Your task to perform on an android device: turn off wifi Image 0: 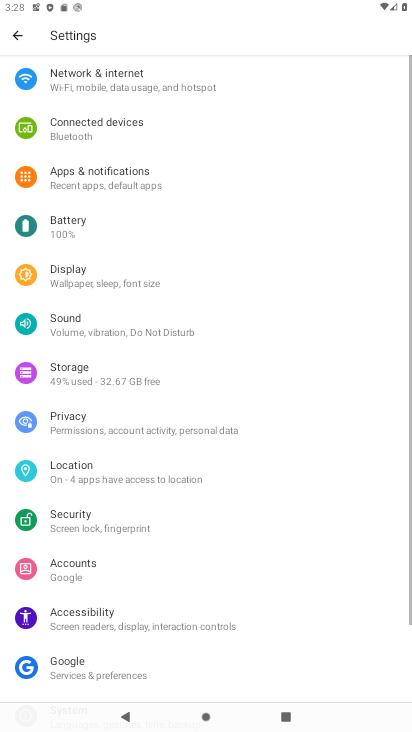
Step 0: click (84, 85)
Your task to perform on an android device: turn off wifi Image 1: 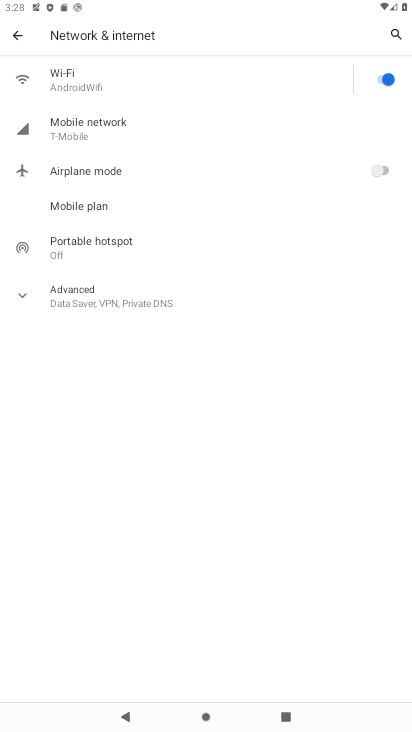
Step 1: click (379, 79)
Your task to perform on an android device: turn off wifi Image 2: 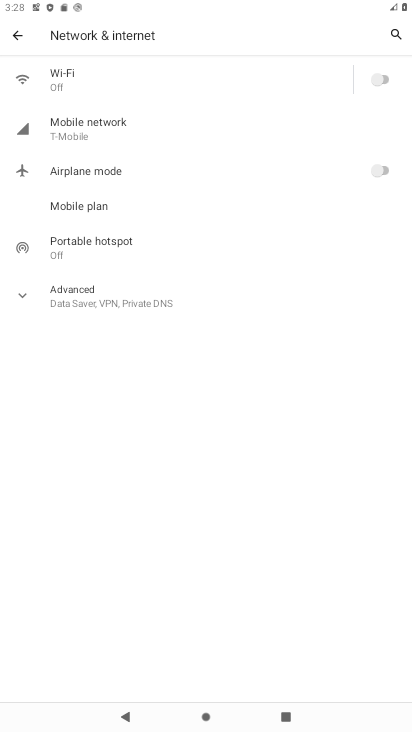
Step 2: task complete